Your task to perform on an android device: Find coffee shops on Maps Image 0: 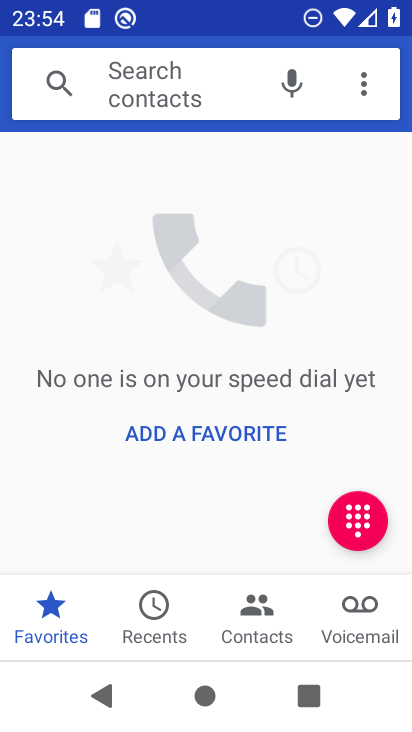
Step 0: press home button
Your task to perform on an android device: Find coffee shops on Maps Image 1: 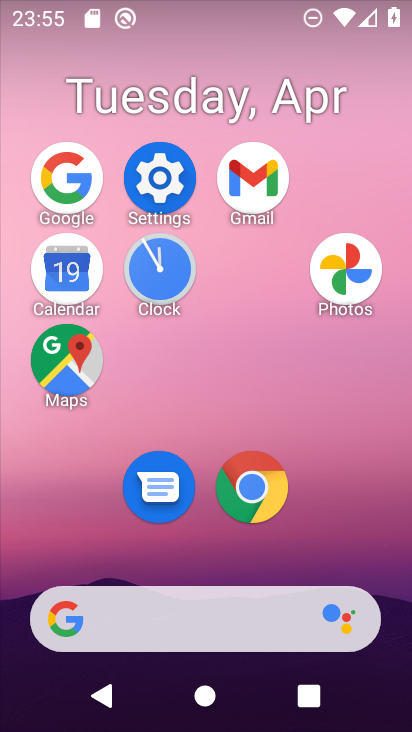
Step 1: click (67, 362)
Your task to perform on an android device: Find coffee shops on Maps Image 2: 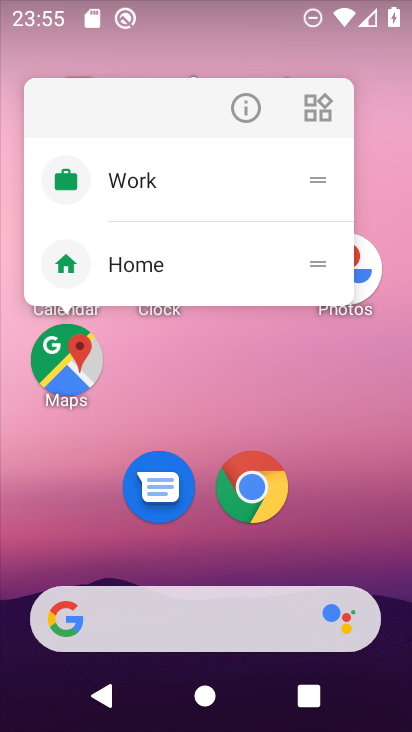
Step 2: click (78, 363)
Your task to perform on an android device: Find coffee shops on Maps Image 3: 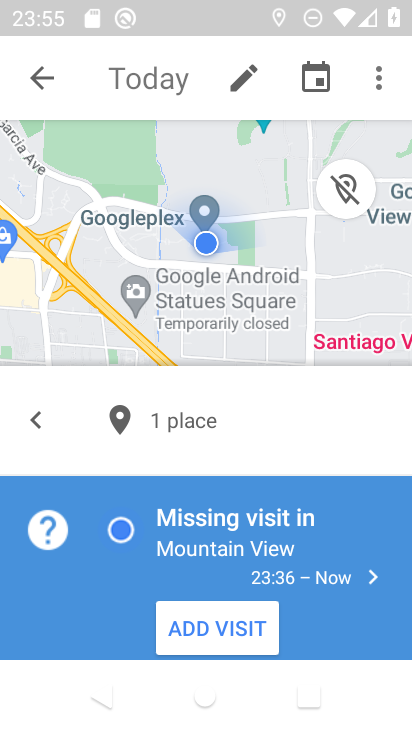
Step 3: click (55, 84)
Your task to perform on an android device: Find coffee shops on Maps Image 4: 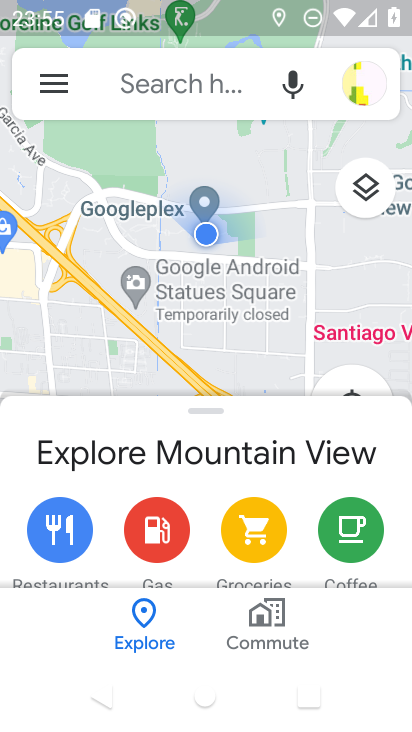
Step 4: click (166, 85)
Your task to perform on an android device: Find coffee shops on Maps Image 5: 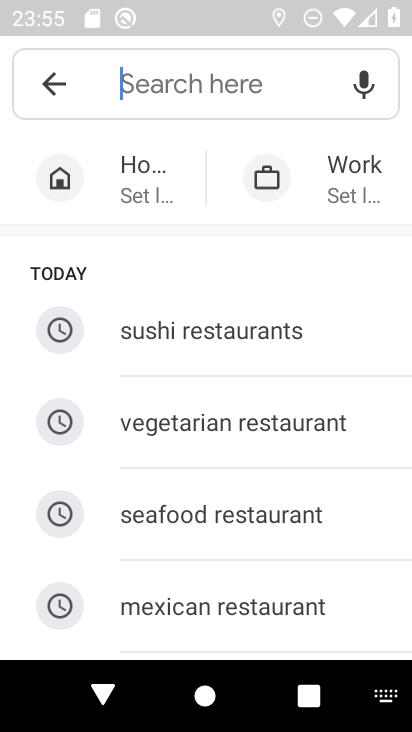
Step 5: type "coffee shops"
Your task to perform on an android device: Find coffee shops on Maps Image 6: 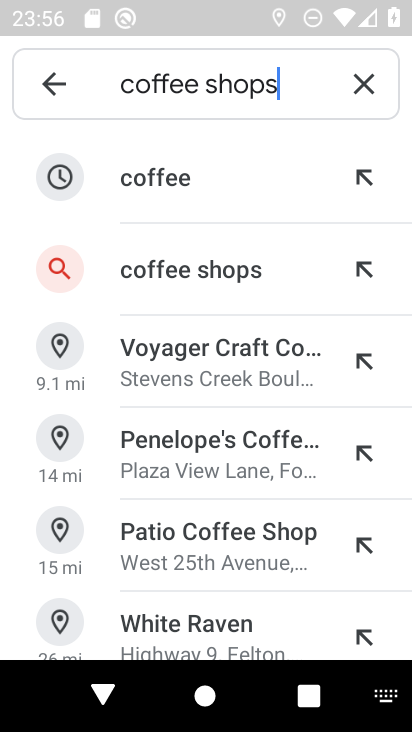
Step 6: task complete